Your task to perform on an android device: toggle improve location accuracy Image 0: 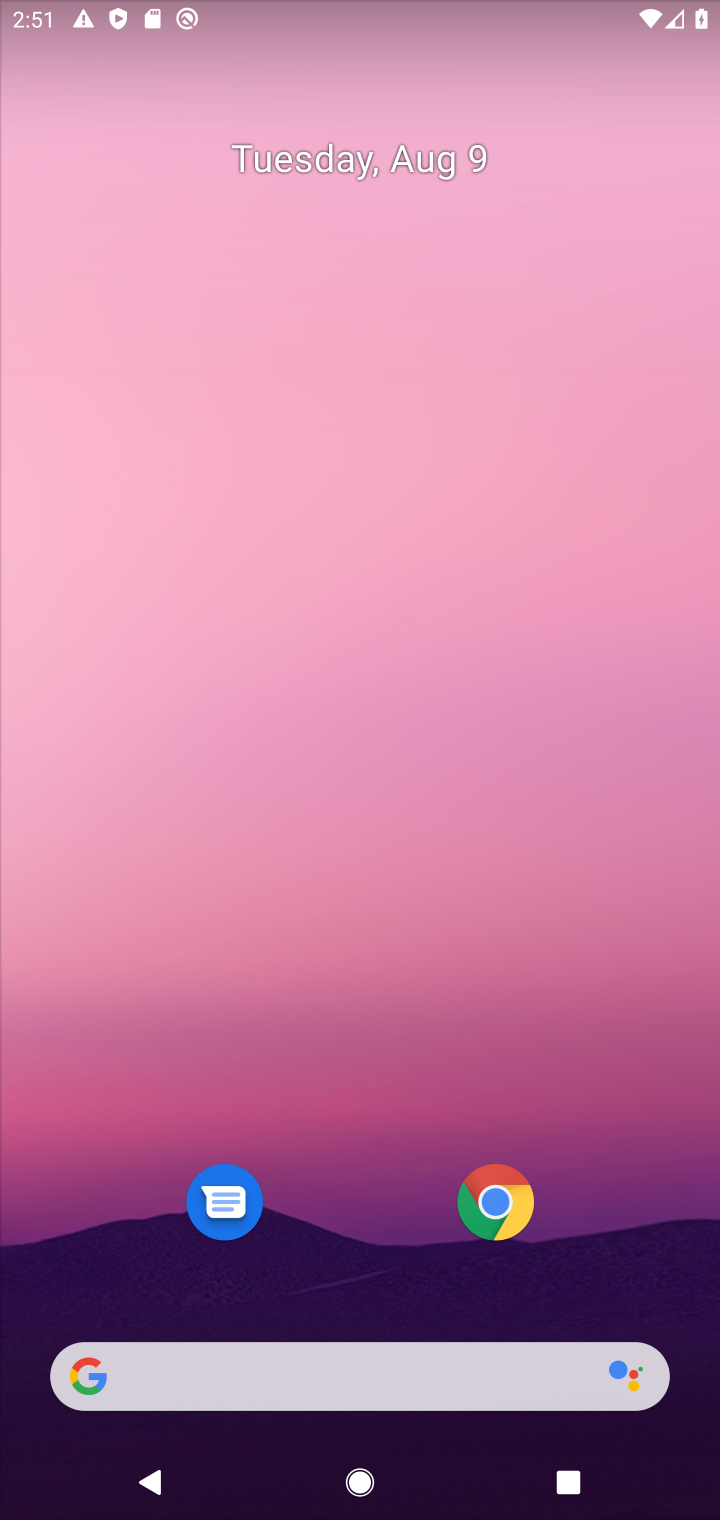
Step 0: drag from (349, 1374) to (478, 106)
Your task to perform on an android device: toggle improve location accuracy Image 1: 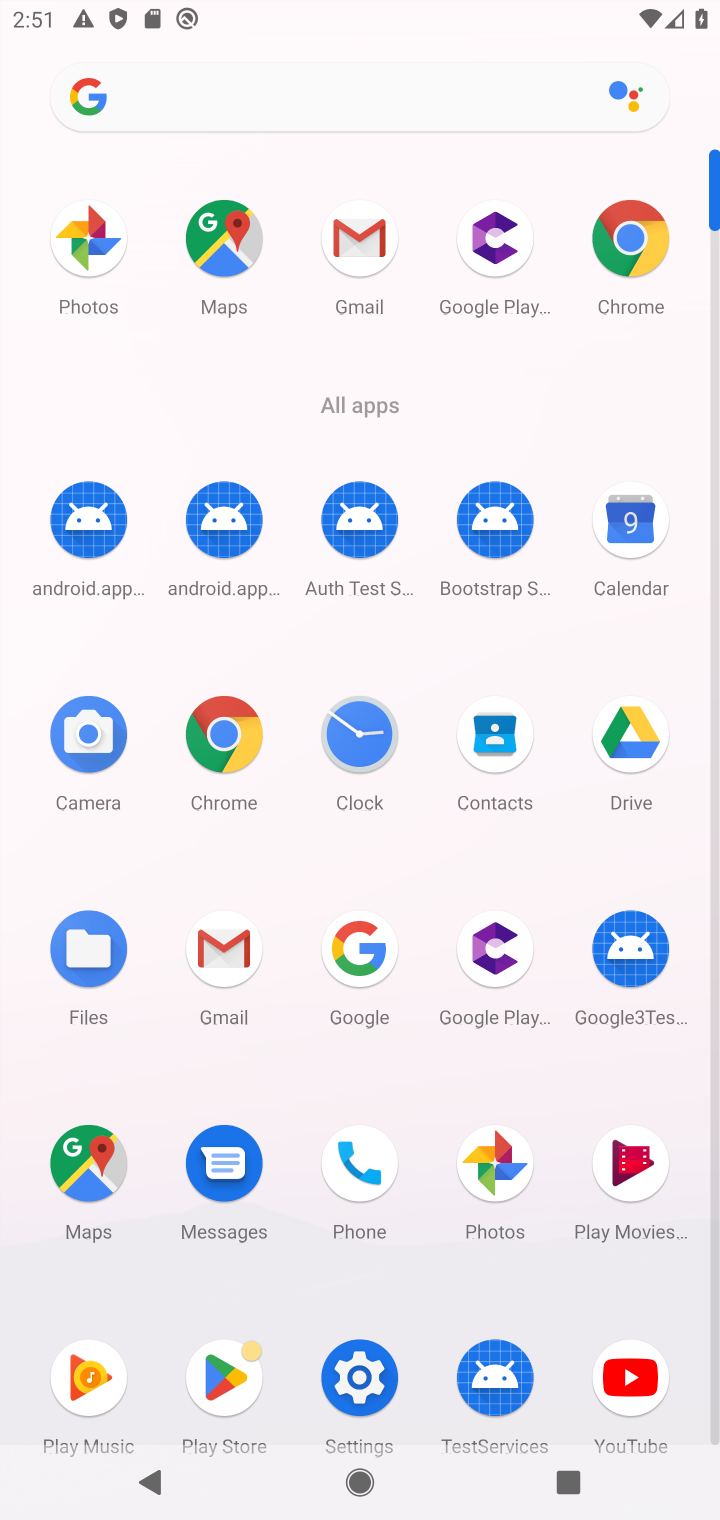
Step 1: click (348, 1406)
Your task to perform on an android device: toggle improve location accuracy Image 2: 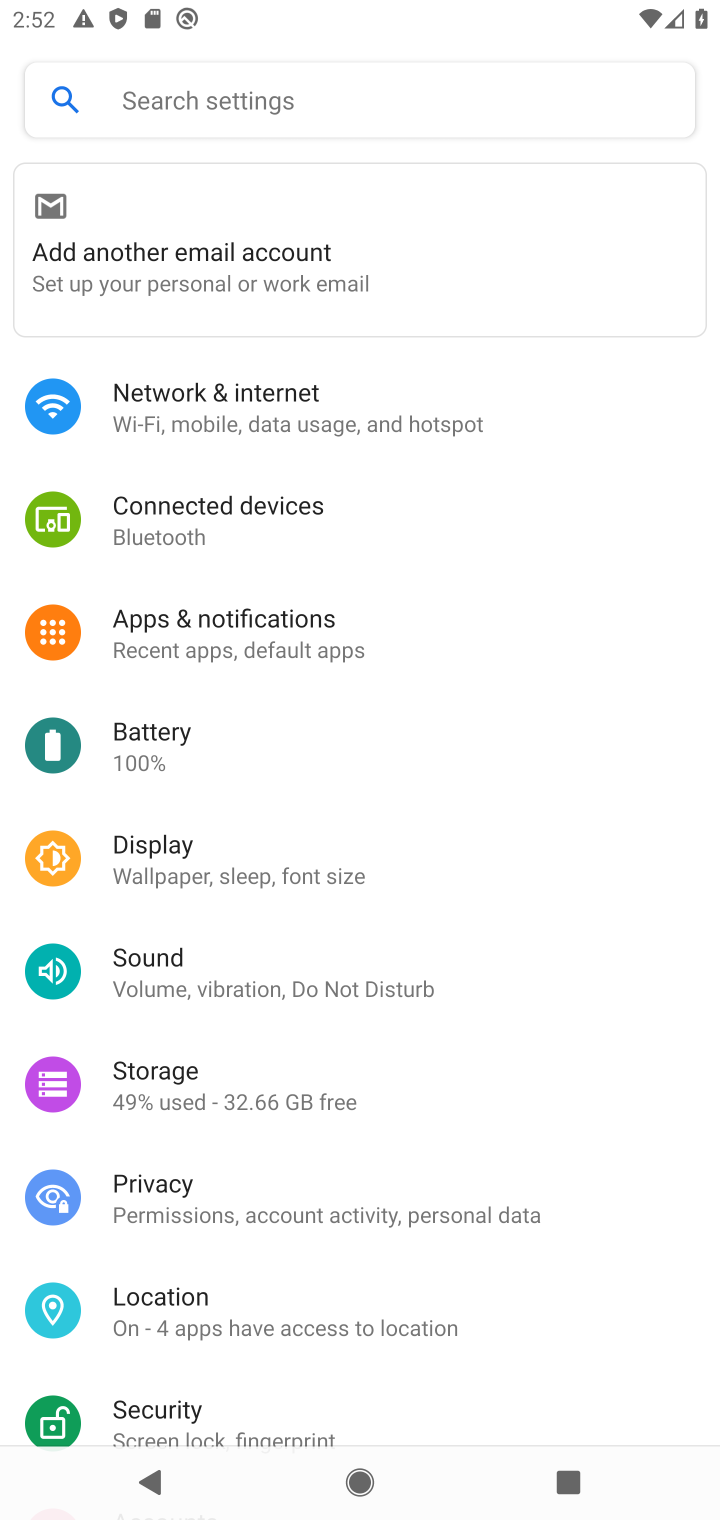
Step 2: drag from (286, 1201) to (290, 1025)
Your task to perform on an android device: toggle improve location accuracy Image 3: 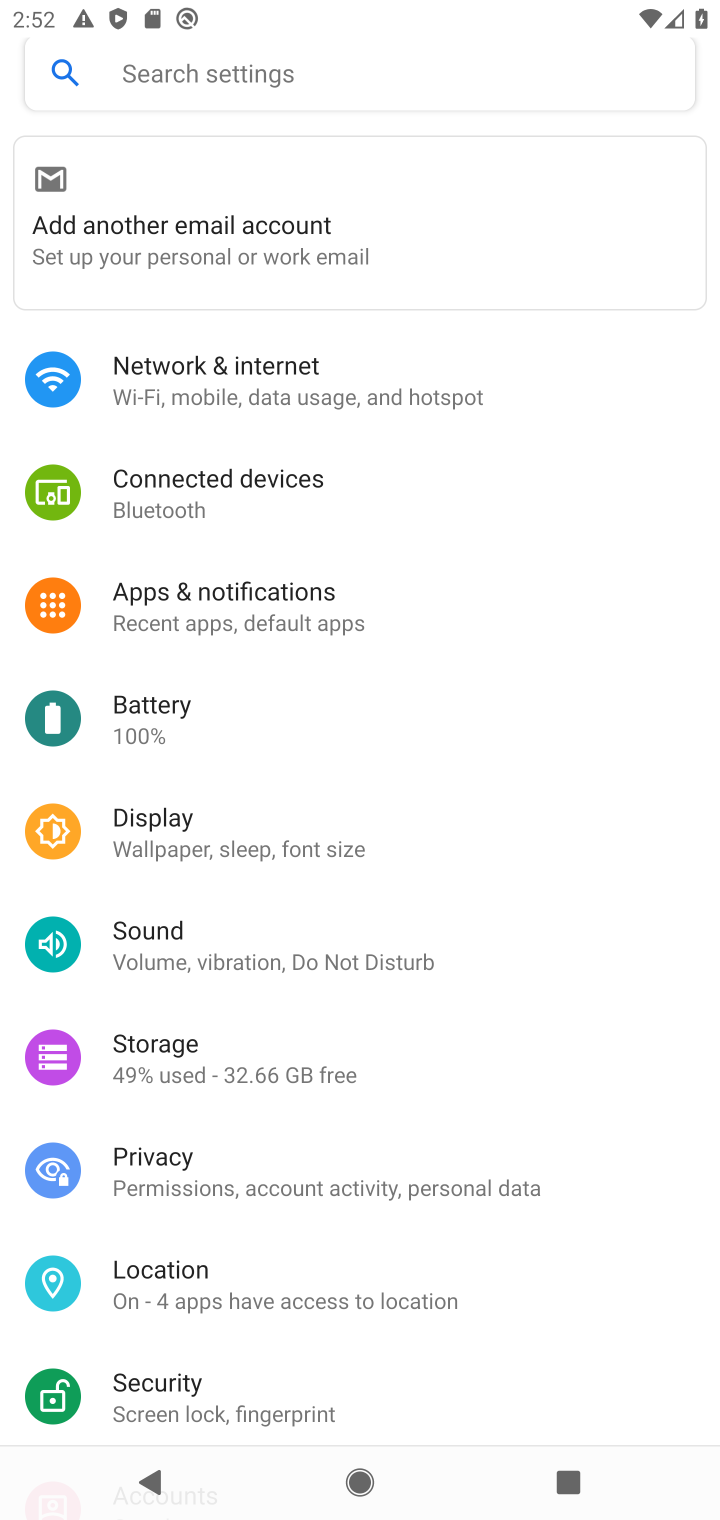
Step 3: click (287, 1299)
Your task to perform on an android device: toggle improve location accuracy Image 4: 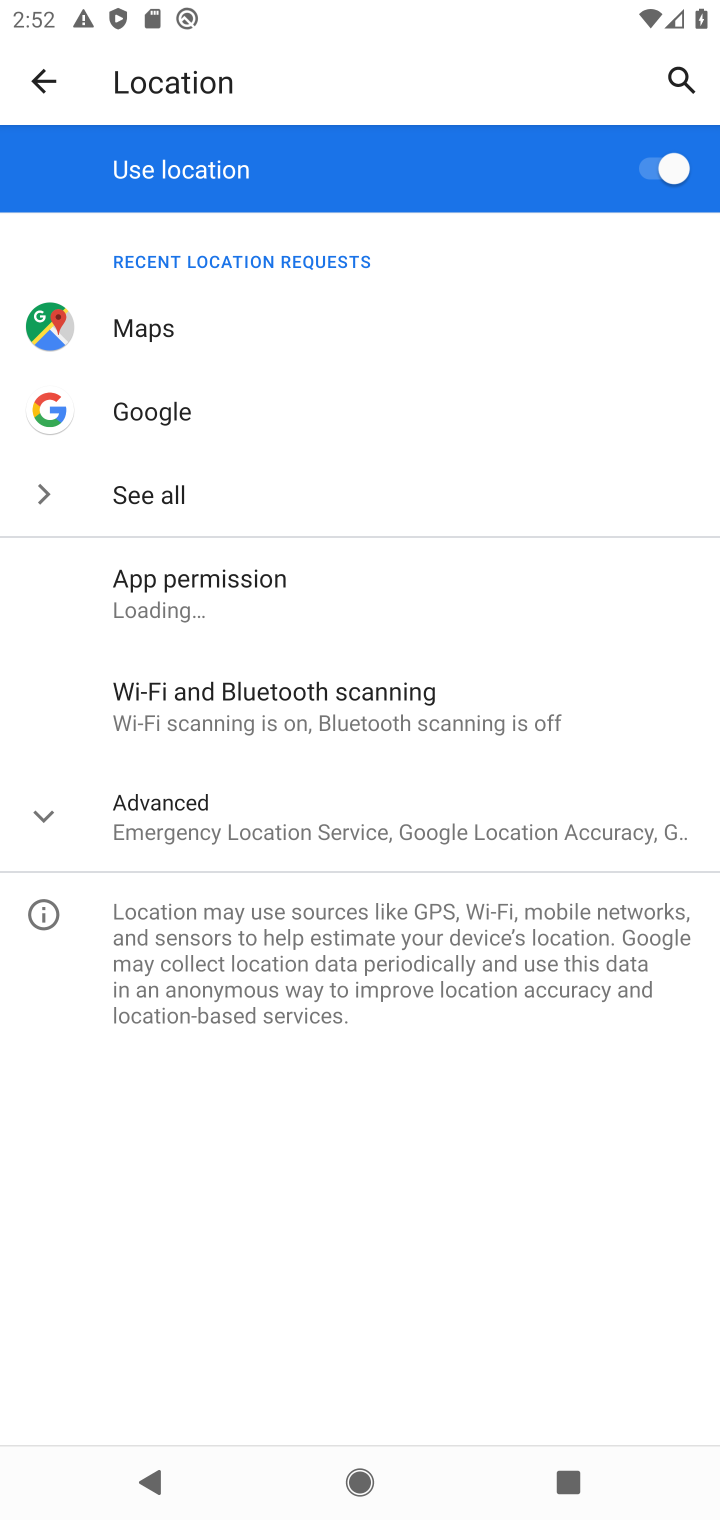
Step 4: click (286, 854)
Your task to perform on an android device: toggle improve location accuracy Image 5: 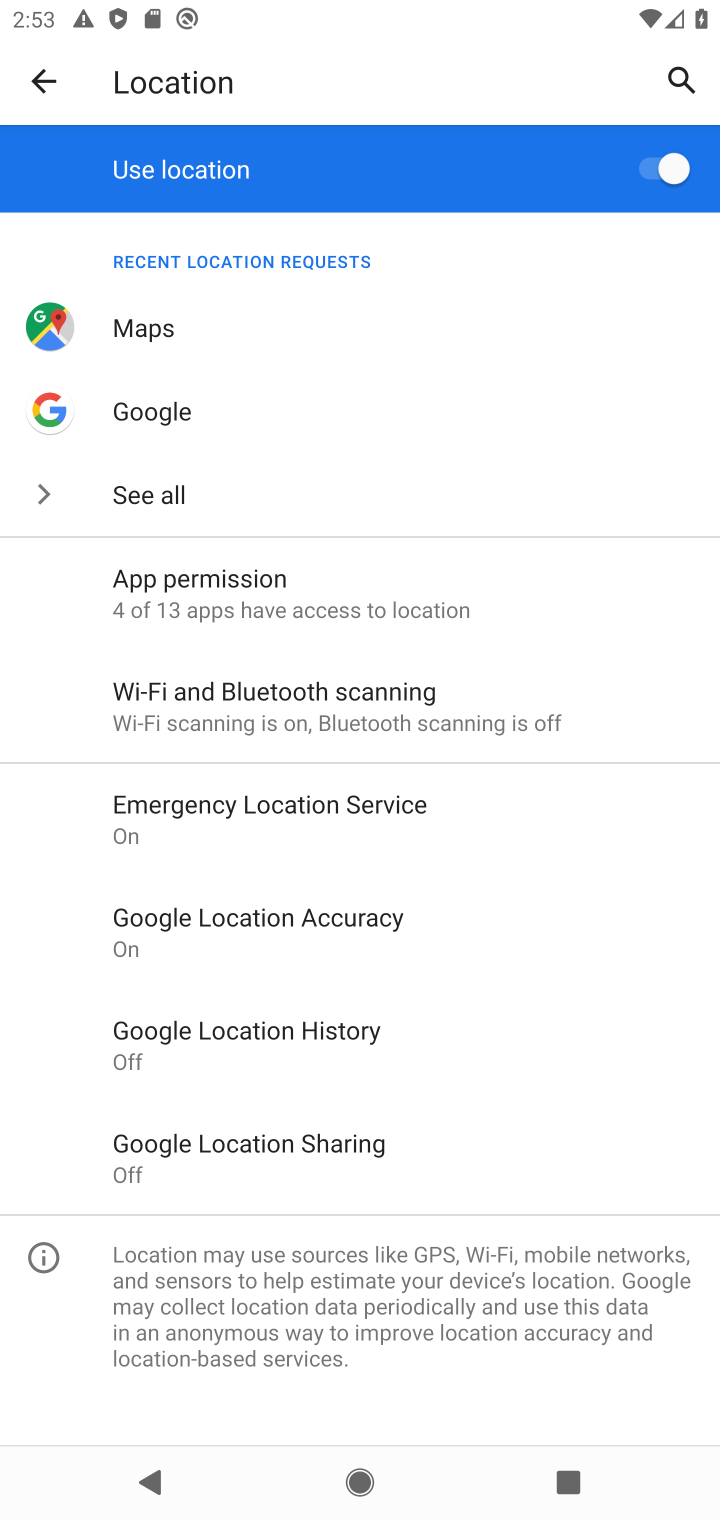
Step 5: click (335, 939)
Your task to perform on an android device: toggle improve location accuracy Image 6: 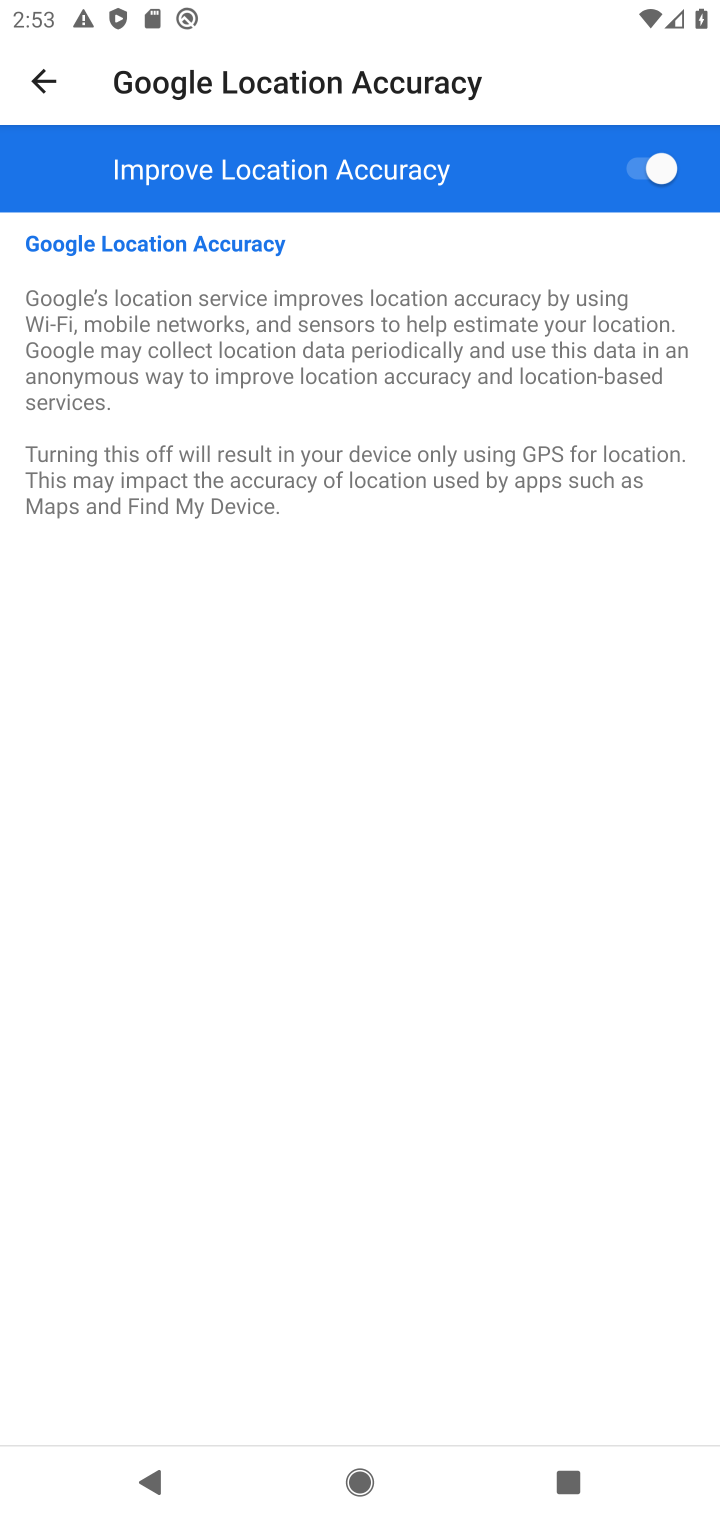
Step 6: click (556, 167)
Your task to perform on an android device: toggle improve location accuracy Image 7: 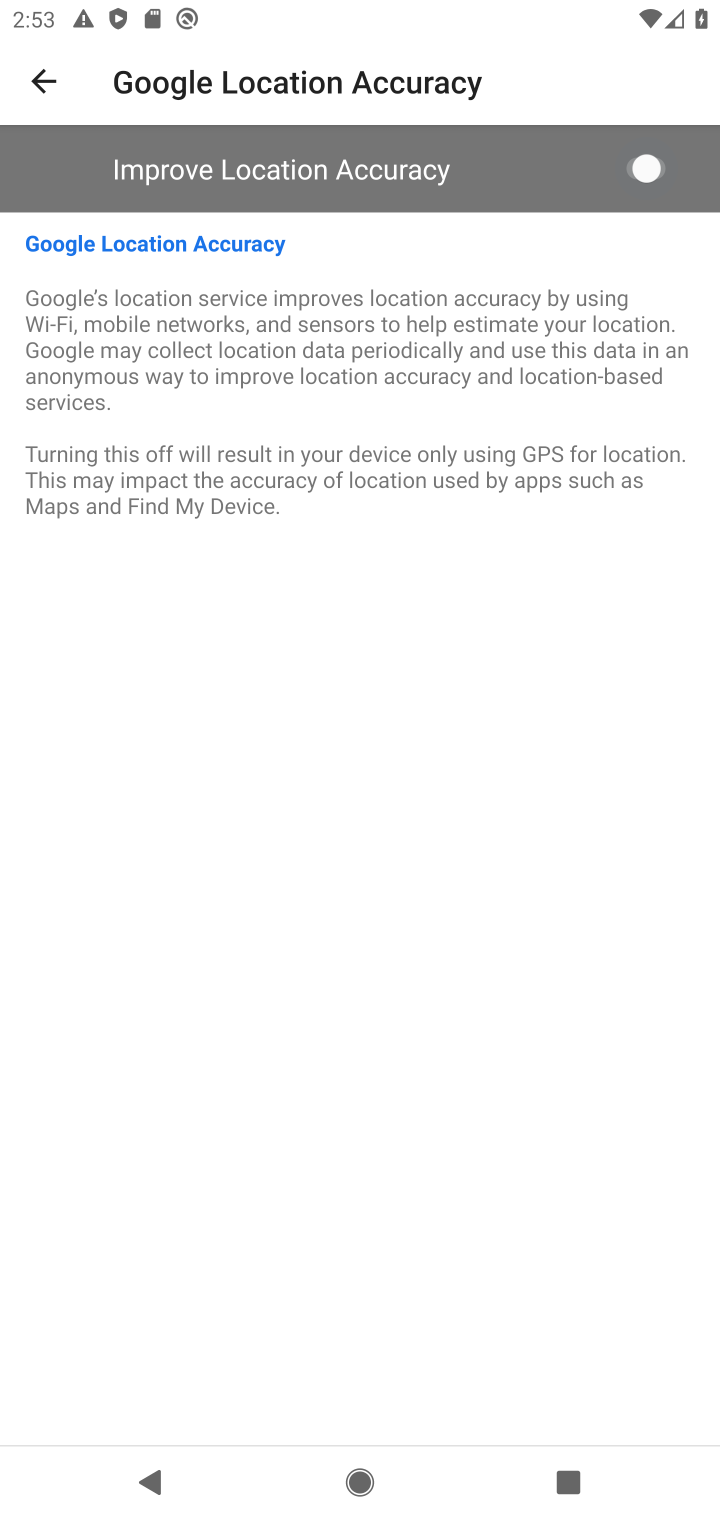
Step 7: task complete